Your task to perform on an android device: Open Google Maps and go to "Timeline" Image 0: 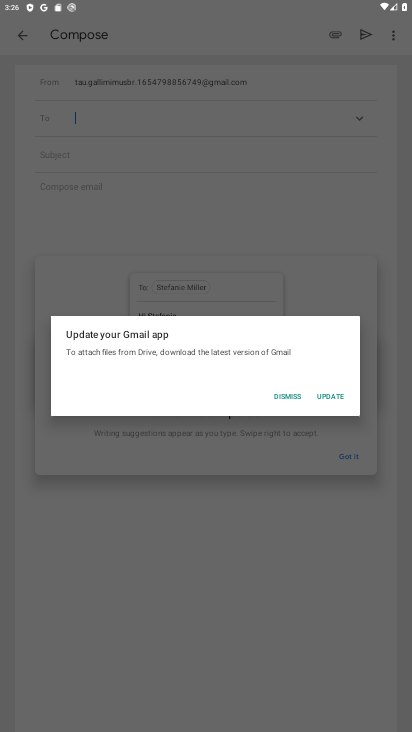
Step 0: press home button
Your task to perform on an android device: Open Google Maps and go to "Timeline" Image 1: 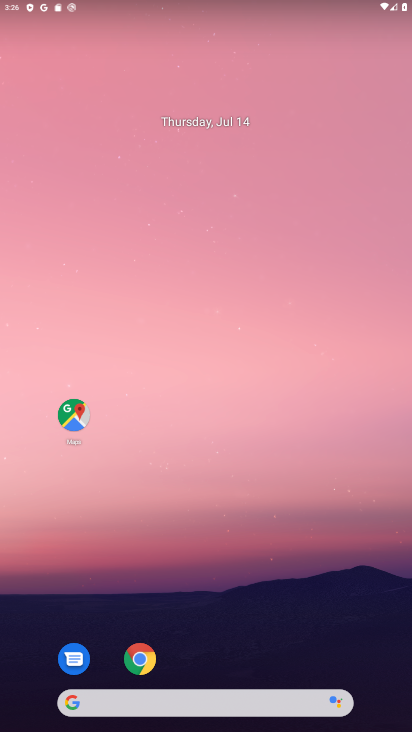
Step 1: drag from (342, 598) to (340, 154)
Your task to perform on an android device: Open Google Maps and go to "Timeline" Image 2: 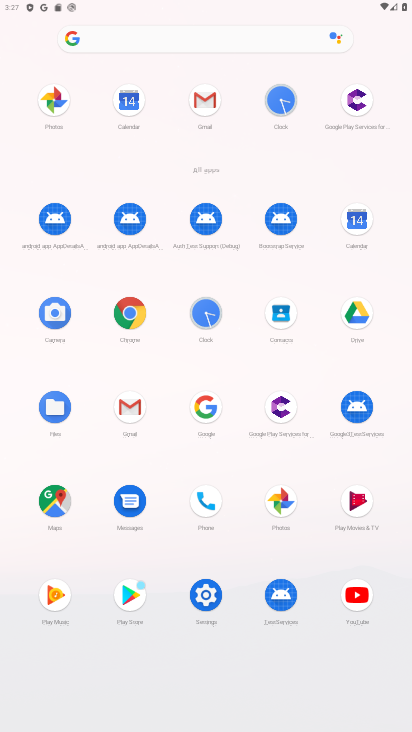
Step 2: click (56, 503)
Your task to perform on an android device: Open Google Maps and go to "Timeline" Image 3: 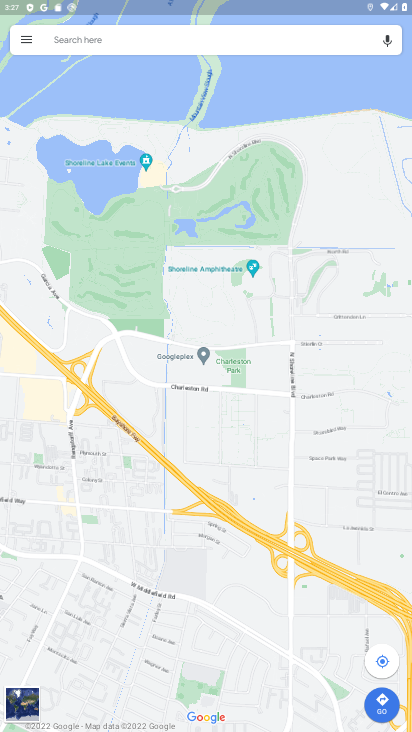
Step 3: click (28, 41)
Your task to perform on an android device: Open Google Maps and go to "Timeline" Image 4: 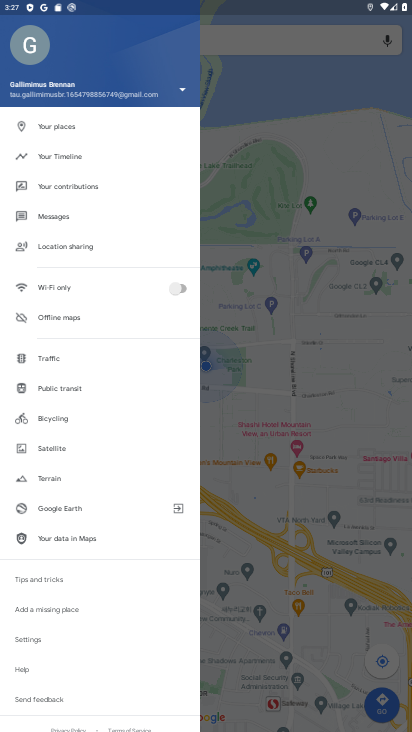
Step 4: click (45, 156)
Your task to perform on an android device: Open Google Maps and go to "Timeline" Image 5: 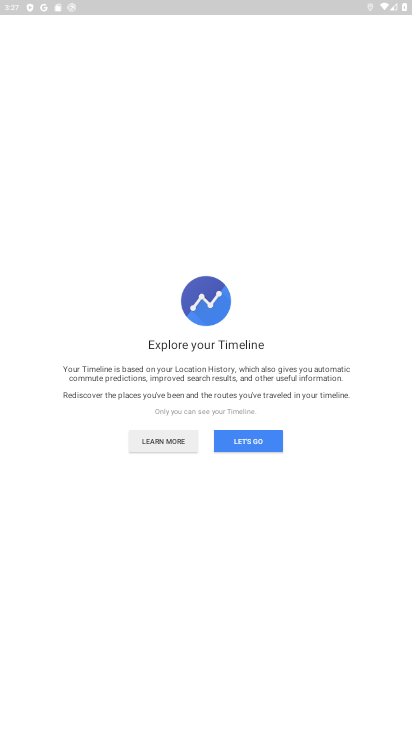
Step 5: task complete